Your task to perform on an android device: Open calendar and show me the second week of next month Image 0: 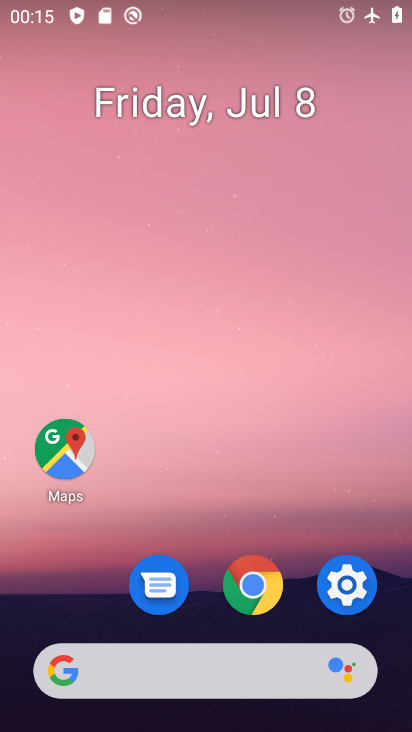
Step 0: click (248, 561)
Your task to perform on an android device: Open calendar and show me the second week of next month Image 1: 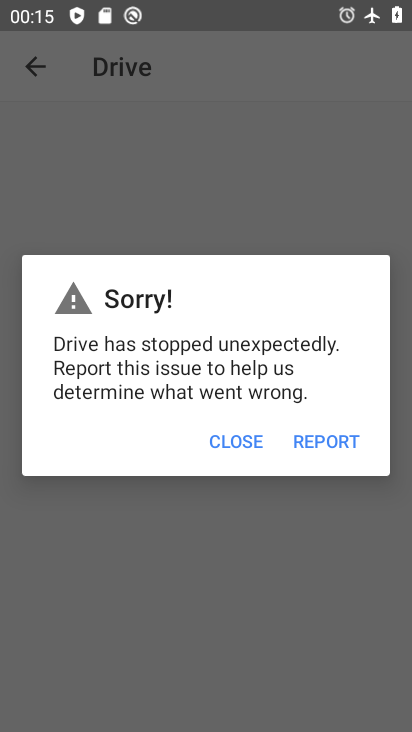
Step 1: click (232, 441)
Your task to perform on an android device: Open calendar and show me the second week of next month Image 2: 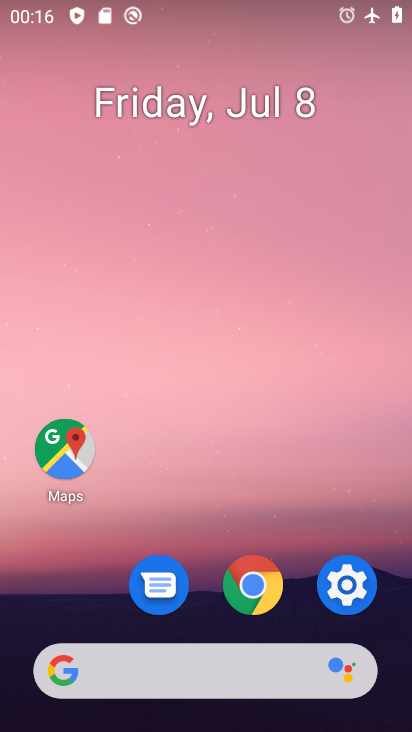
Step 2: drag from (268, 706) to (408, 310)
Your task to perform on an android device: Open calendar and show me the second week of next month Image 3: 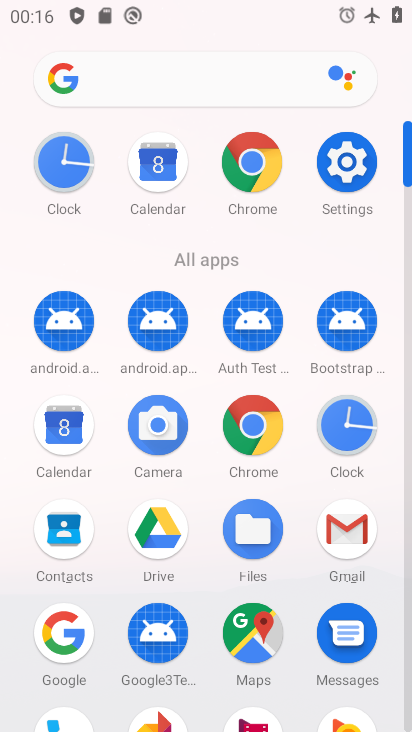
Step 3: click (57, 425)
Your task to perform on an android device: Open calendar and show me the second week of next month Image 4: 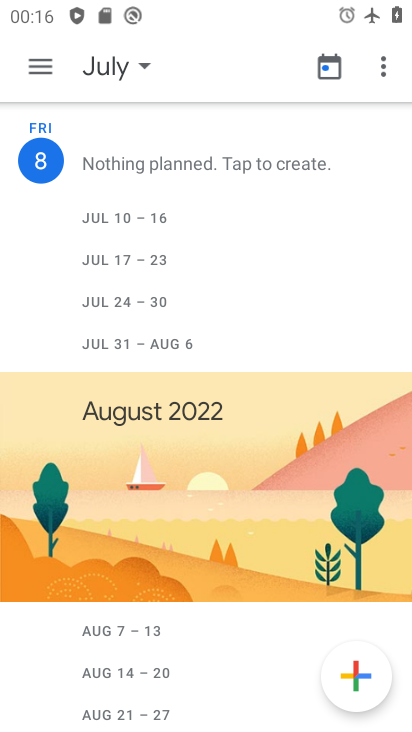
Step 4: click (27, 78)
Your task to perform on an android device: Open calendar and show me the second week of next month Image 5: 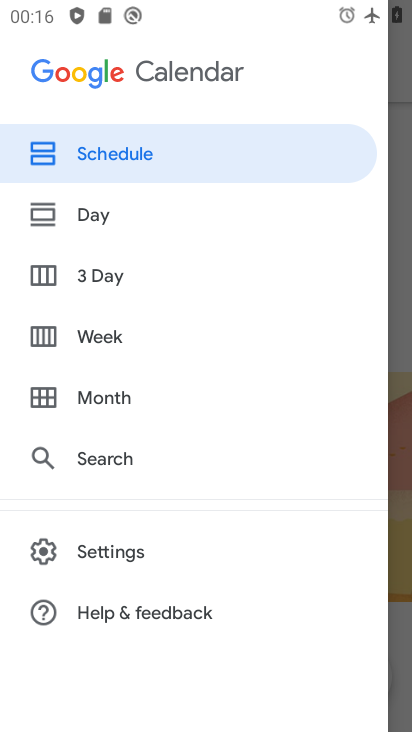
Step 5: click (133, 394)
Your task to perform on an android device: Open calendar and show me the second week of next month Image 6: 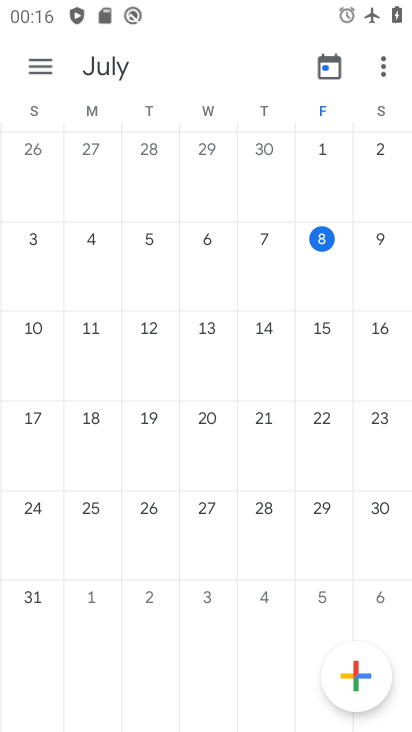
Step 6: drag from (356, 466) to (0, 520)
Your task to perform on an android device: Open calendar and show me the second week of next month Image 7: 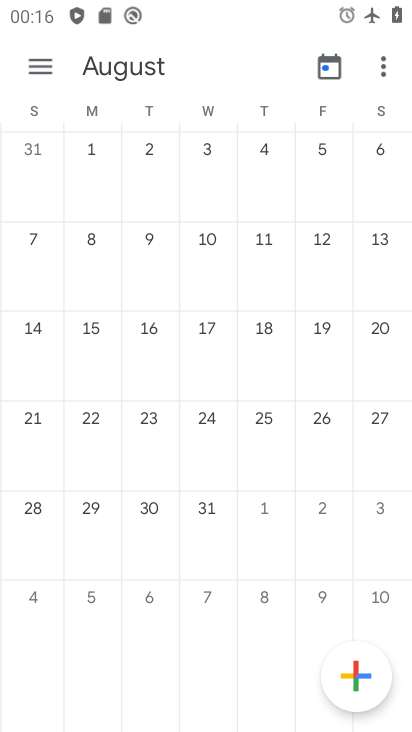
Step 7: click (85, 272)
Your task to perform on an android device: Open calendar and show me the second week of next month Image 8: 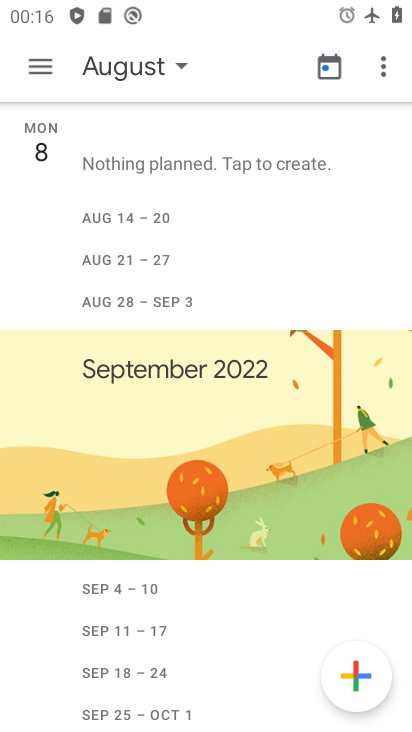
Step 8: task complete